Your task to perform on an android device: turn off notifications in google photos Image 0: 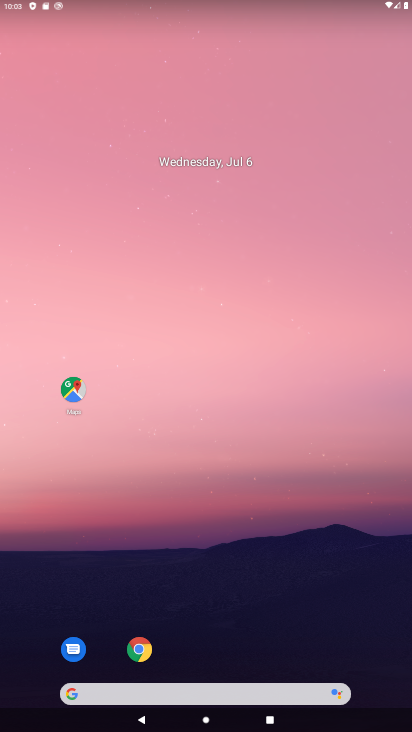
Step 0: drag from (383, 660) to (215, 30)
Your task to perform on an android device: turn off notifications in google photos Image 1: 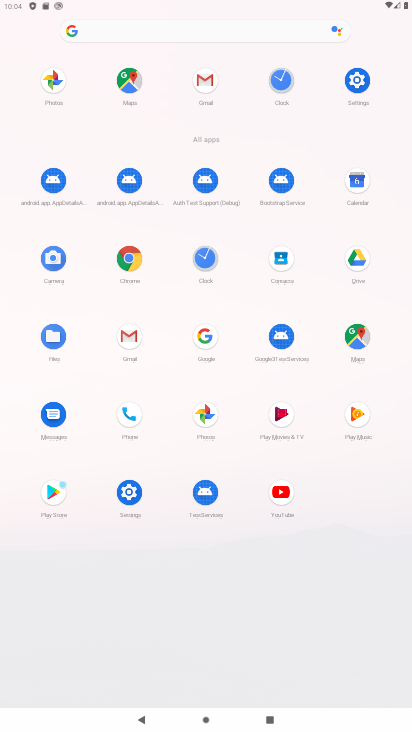
Step 1: click (206, 415)
Your task to perform on an android device: turn off notifications in google photos Image 2: 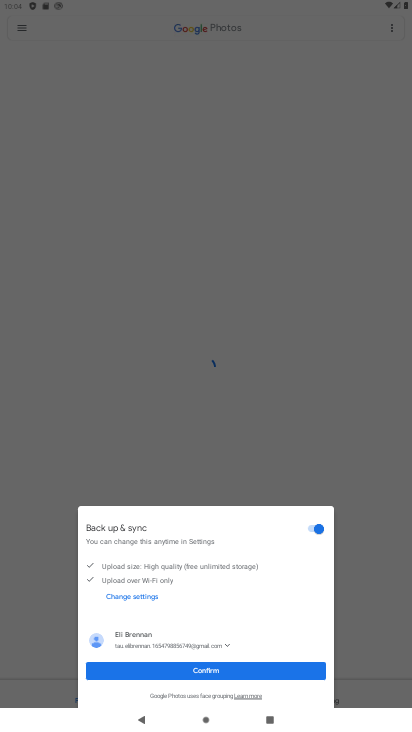
Step 2: click (188, 672)
Your task to perform on an android device: turn off notifications in google photos Image 3: 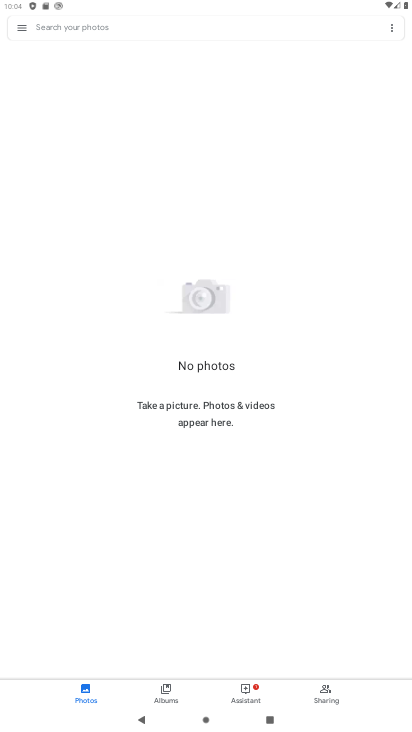
Step 3: click (24, 22)
Your task to perform on an android device: turn off notifications in google photos Image 4: 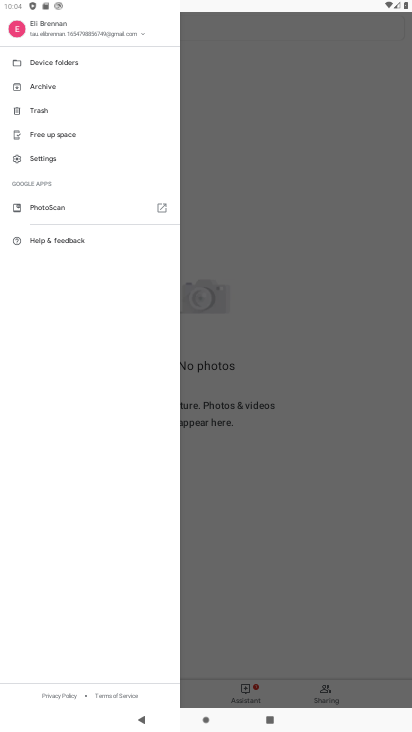
Step 4: click (47, 163)
Your task to perform on an android device: turn off notifications in google photos Image 5: 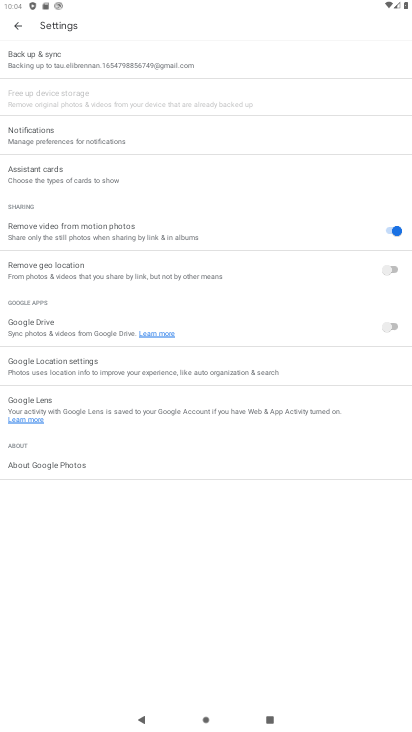
Step 5: click (59, 142)
Your task to perform on an android device: turn off notifications in google photos Image 6: 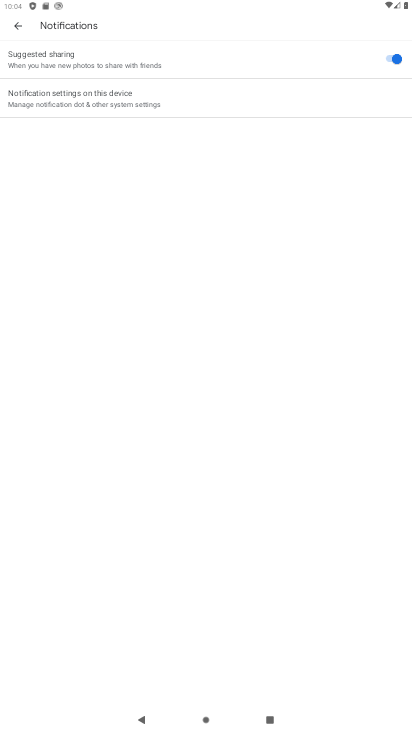
Step 6: click (371, 54)
Your task to perform on an android device: turn off notifications in google photos Image 7: 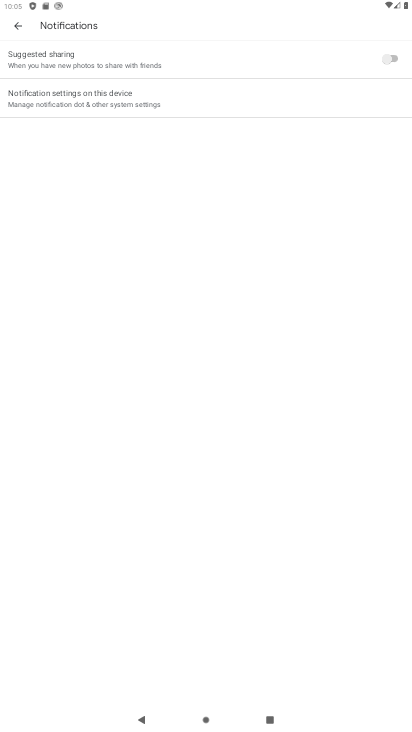
Step 7: task complete